Your task to perform on an android device: turn off sleep mode Image 0: 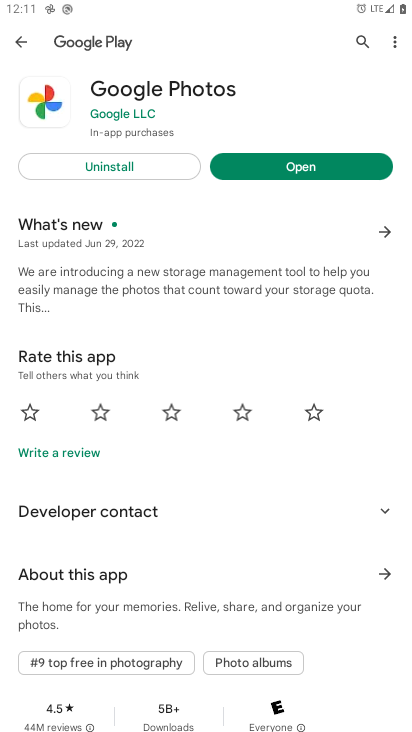
Step 0: press home button
Your task to perform on an android device: turn off sleep mode Image 1: 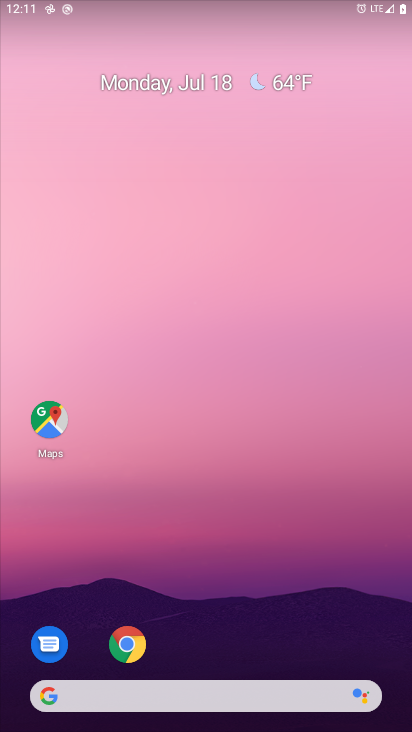
Step 1: press home button
Your task to perform on an android device: turn off sleep mode Image 2: 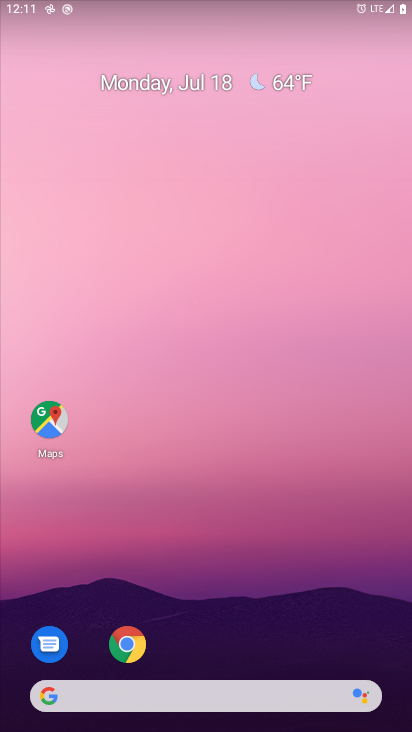
Step 2: drag from (311, 600) to (249, 26)
Your task to perform on an android device: turn off sleep mode Image 3: 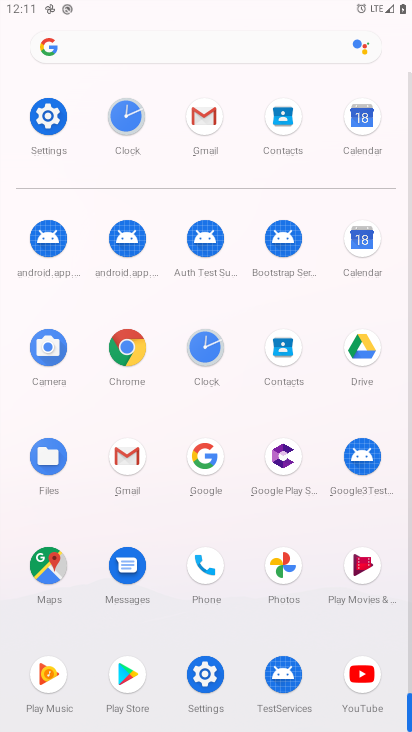
Step 3: click (49, 109)
Your task to perform on an android device: turn off sleep mode Image 4: 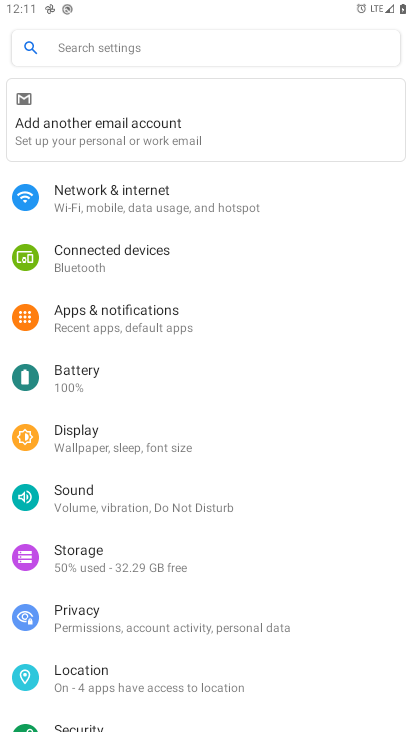
Step 4: click (97, 430)
Your task to perform on an android device: turn off sleep mode Image 5: 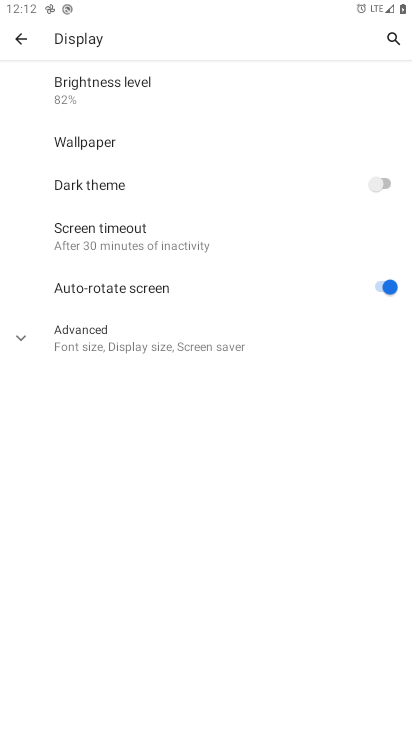
Step 5: click (30, 336)
Your task to perform on an android device: turn off sleep mode Image 6: 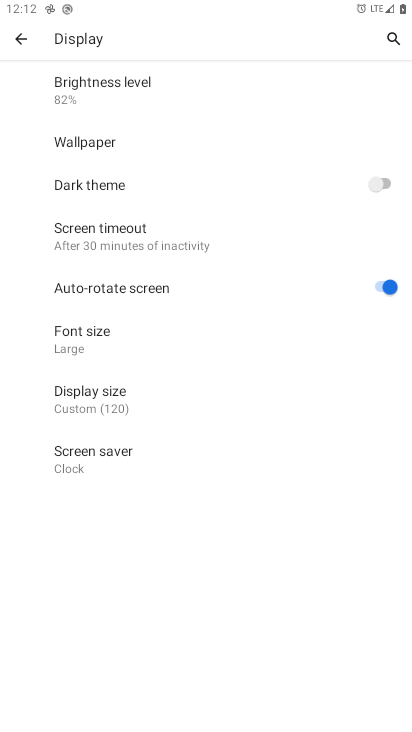
Step 6: task complete